Your task to perform on an android device: change the clock style Image 0: 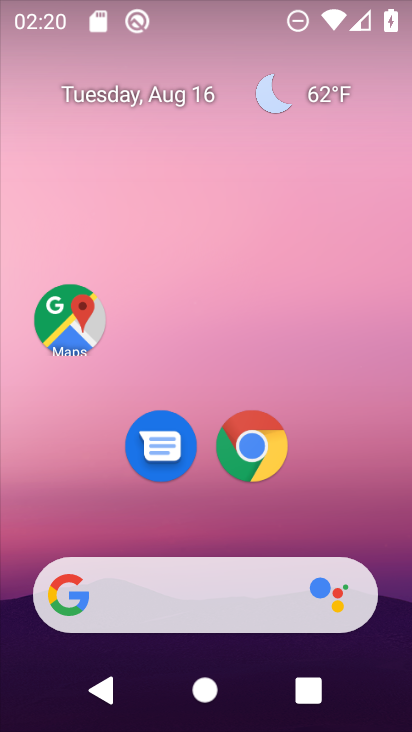
Step 0: press home button
Your task to perform on an android device: change the clock style Image 1: 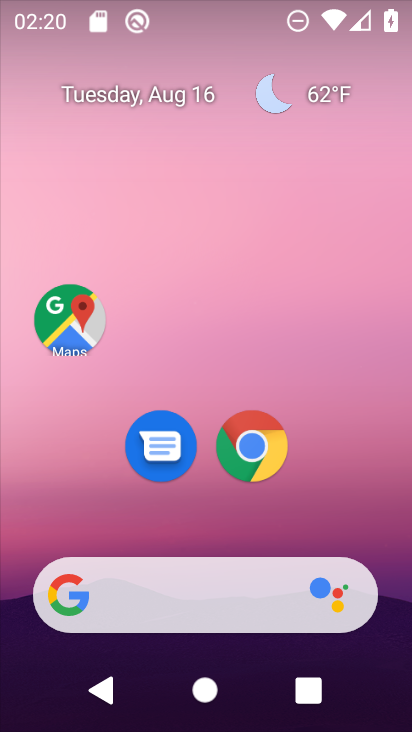
Step 1: drag from (214, 503) to (210, 32)
Your task to perform on an android device: change the clock style Image 2: 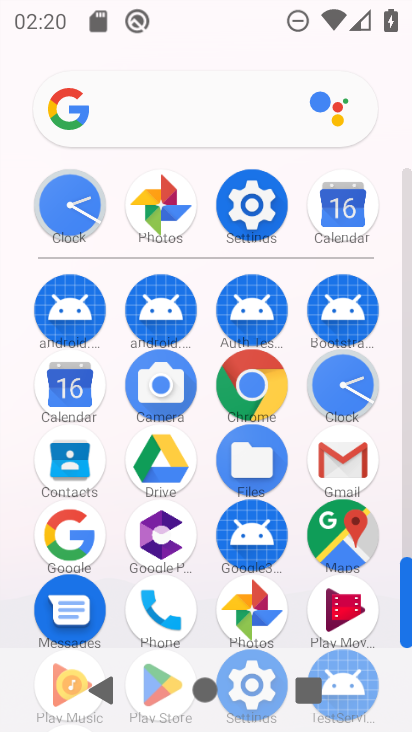
Step 2: click (346, 379)
Your task to perform on an android device: change the clock style Image 3: 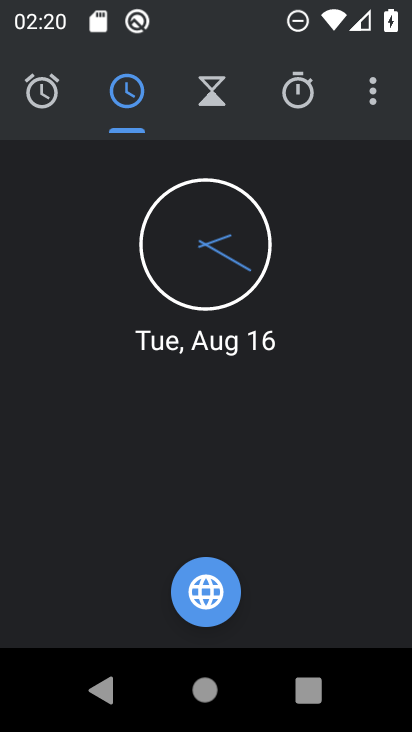
Step 3: click (371, 94)
Your task to perform on an android device: change the clock style Image 4: 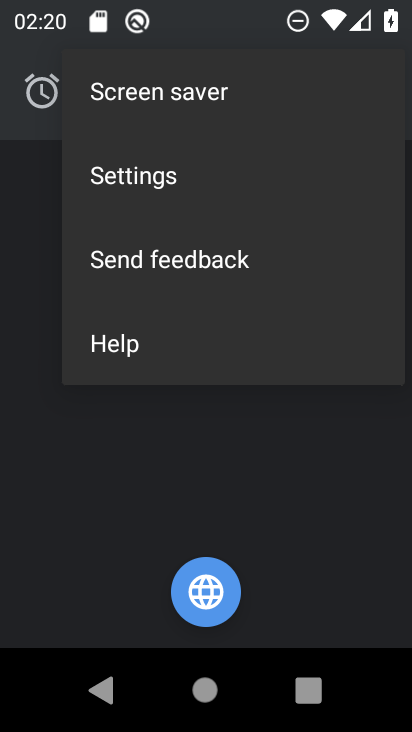
Step 4: click (178, 172)
Your task to perform on an android device: change the clock style Image 5: 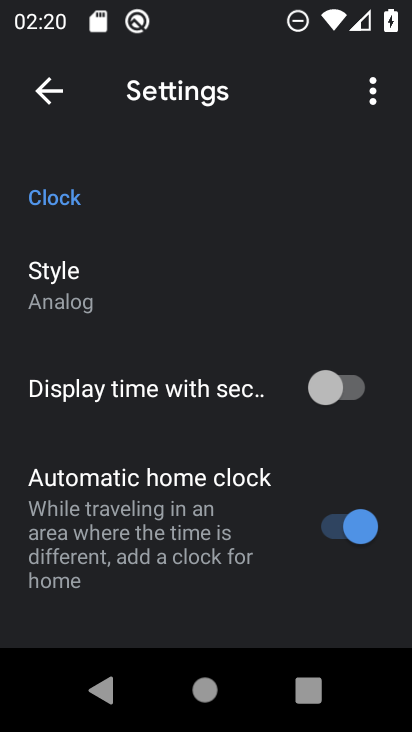
Step 5: click (102, 283)
Your task to perform on an android device: change the clock style Image 6: 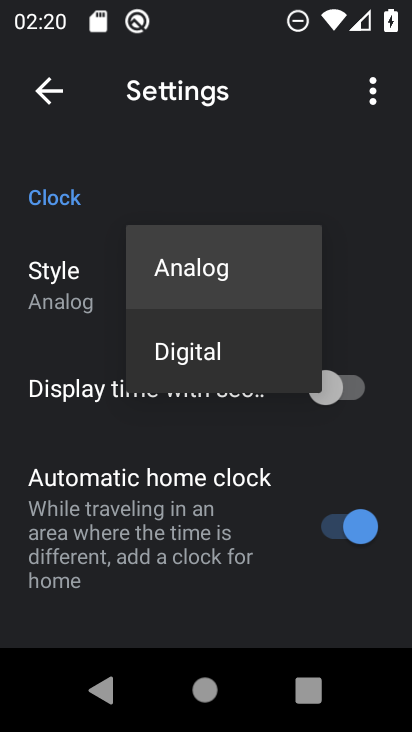
Step 6: click (192, 351)
Your task to perform on an android device: change the clock style Image 7: 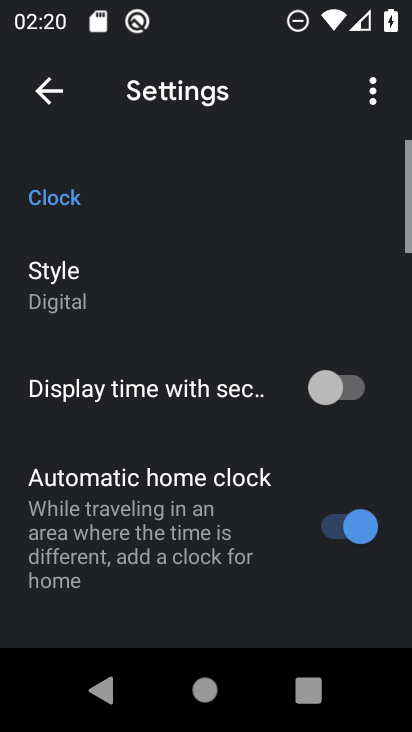
Step 7: task complete